Your task to perform on an android device: Go to display settings Image 0: 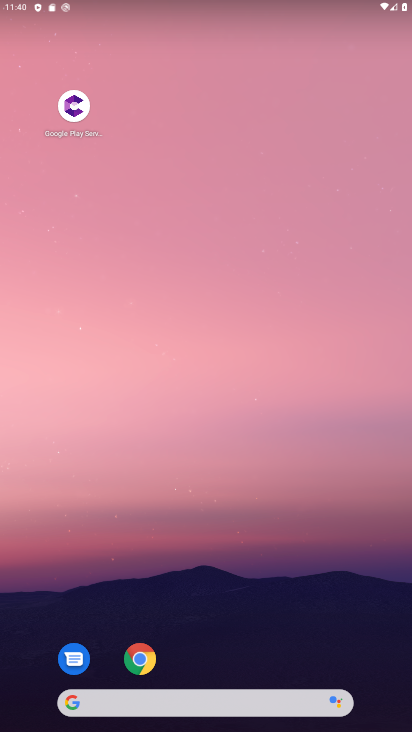
Step 0: drag from (205, 720) to (198, 56)
Your task to perform on an android device: Go to display settings Image 1: 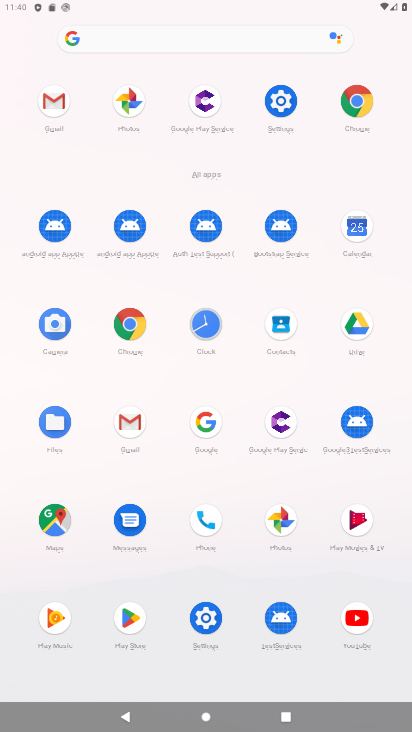
Step 1: click (285, 106)
Your task to perform on an android device: Go to display settings Image 2: 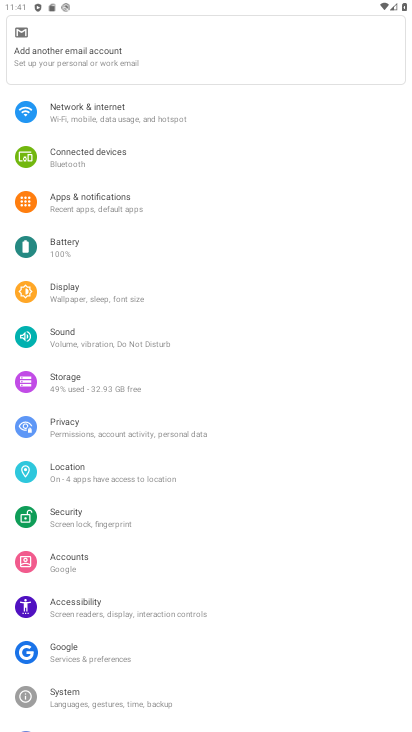
Step 2: click (76, 289)
Your task to perform on an android device: Go to display settings Image 3: 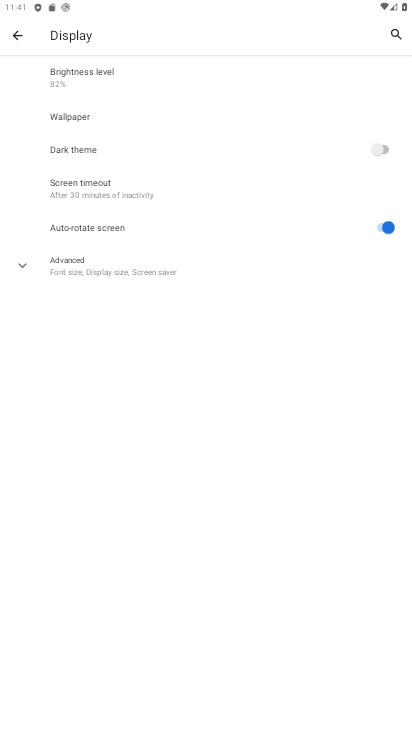
Step 3: task complete